Your task to perform on an android device: Show the shopping cart on newegg.com. Image 0: 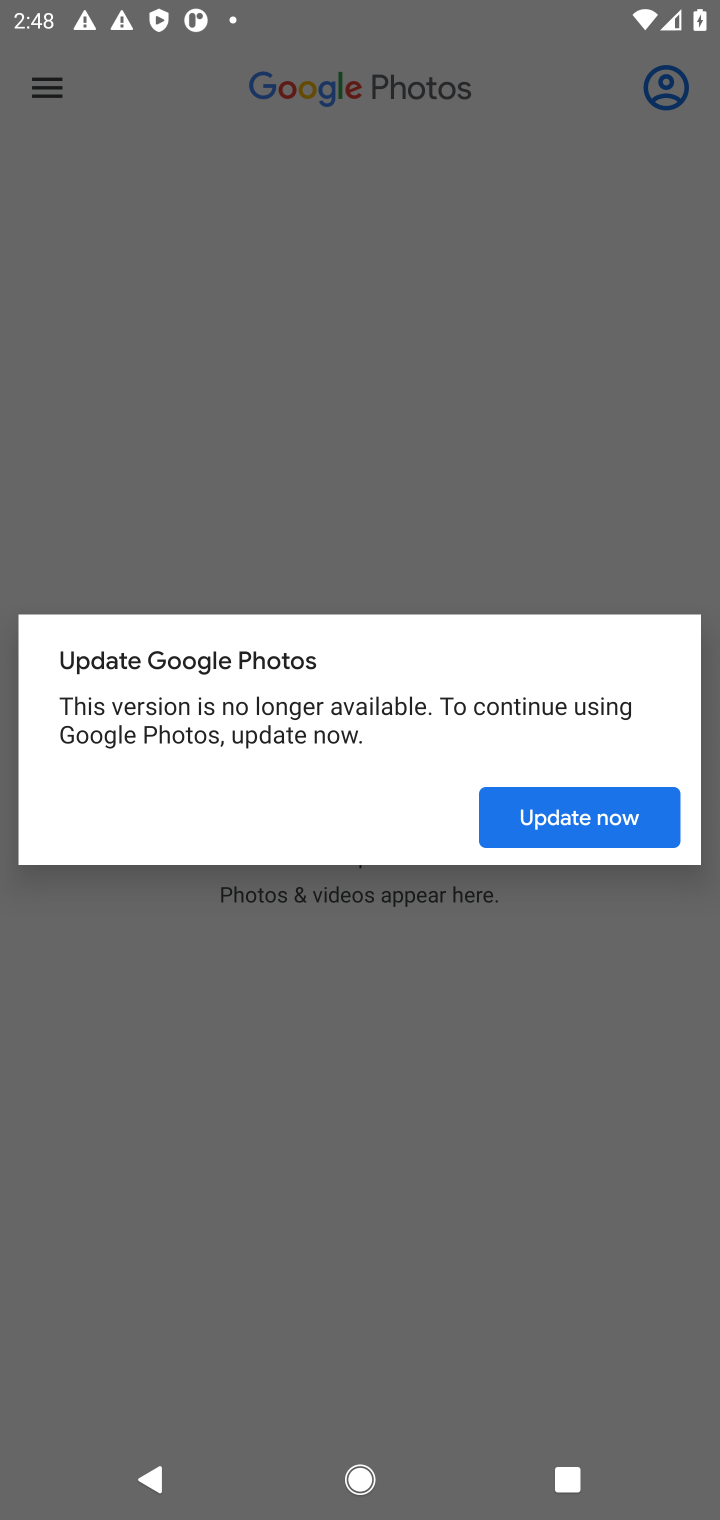
Step 0: press home button
Your task to perform on an android device: Show the shopping cart on newegg.com. Image 1: 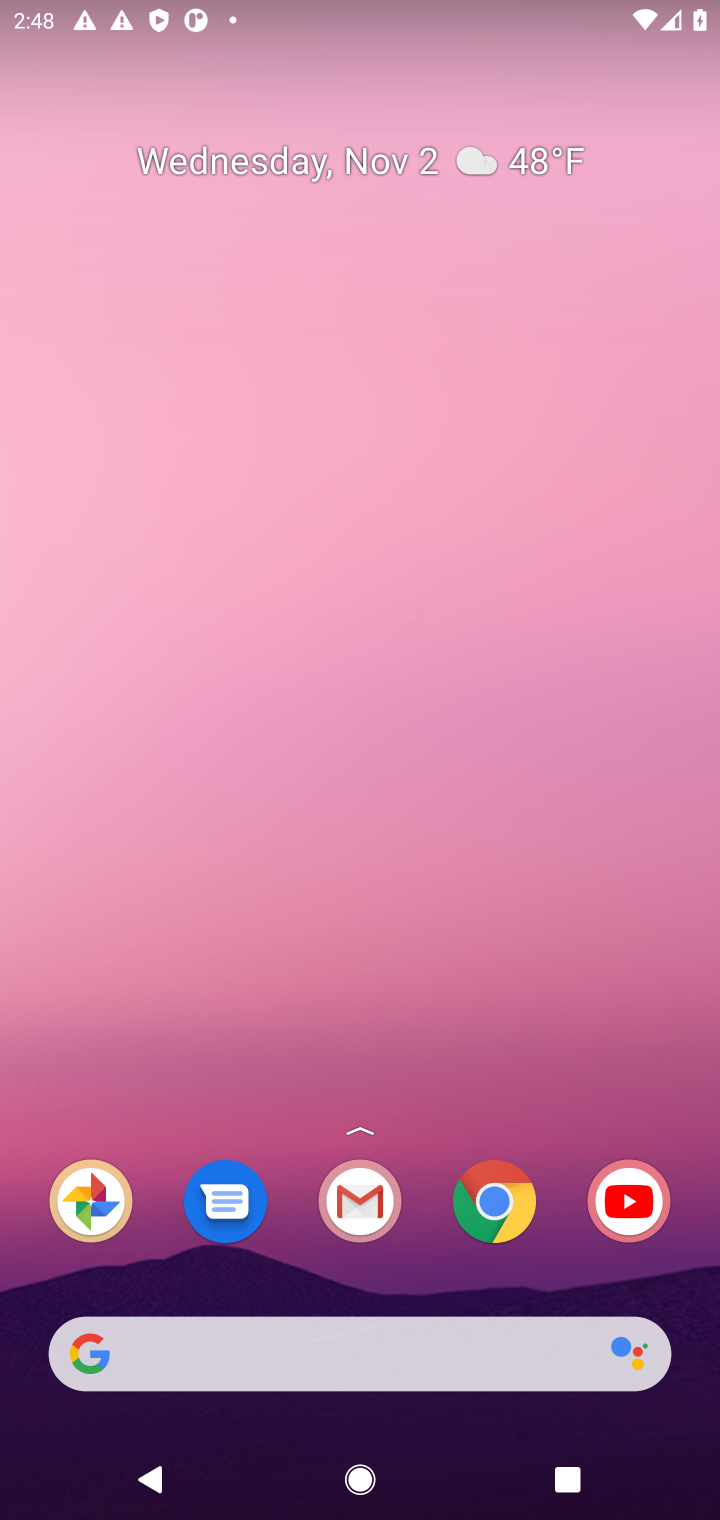
Step 1: click (489, 1204)
Your task to perform on an android device: Show the shopping cart on newegg.com. Image 2: 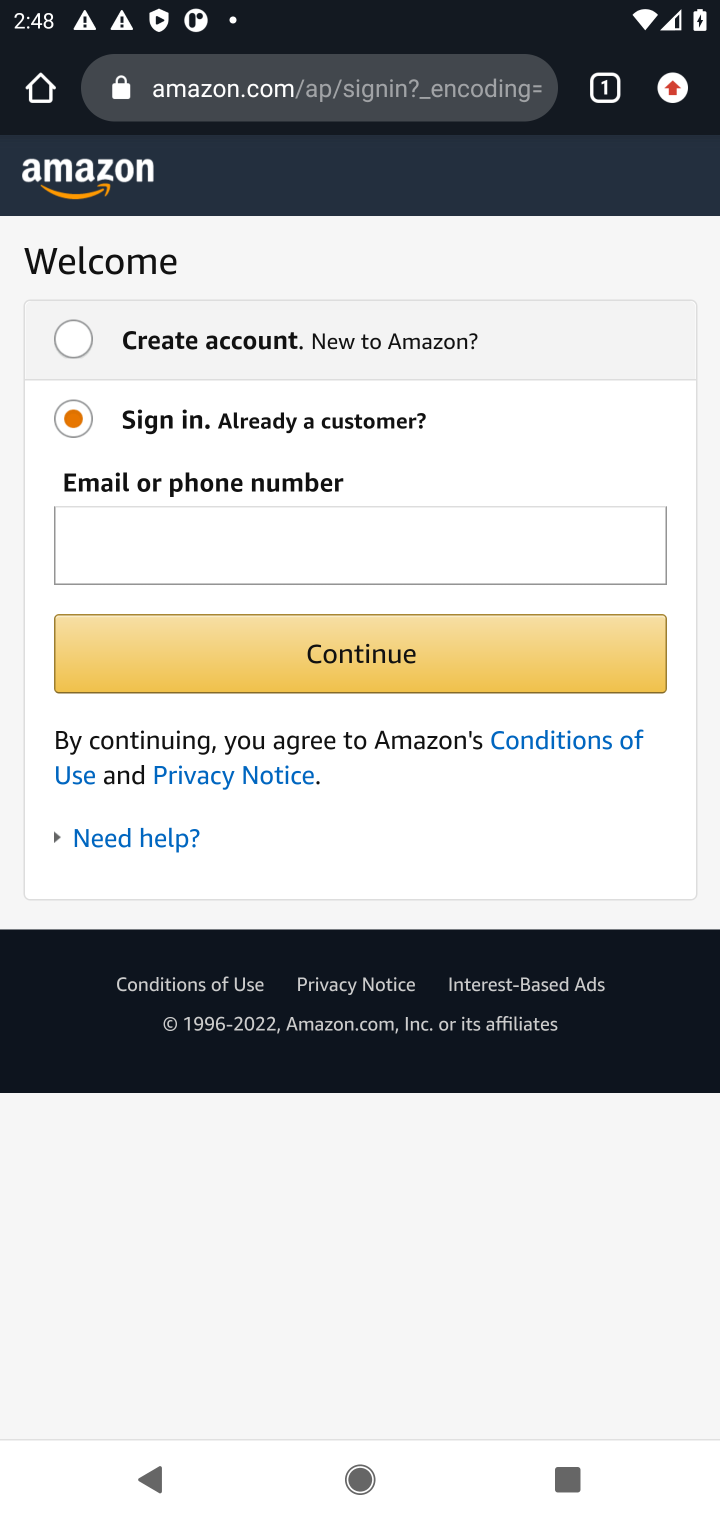
Step 2: click (449, 84)
Your task to perform on an android device: Show the shopping cart on newegg.com. Image 3: 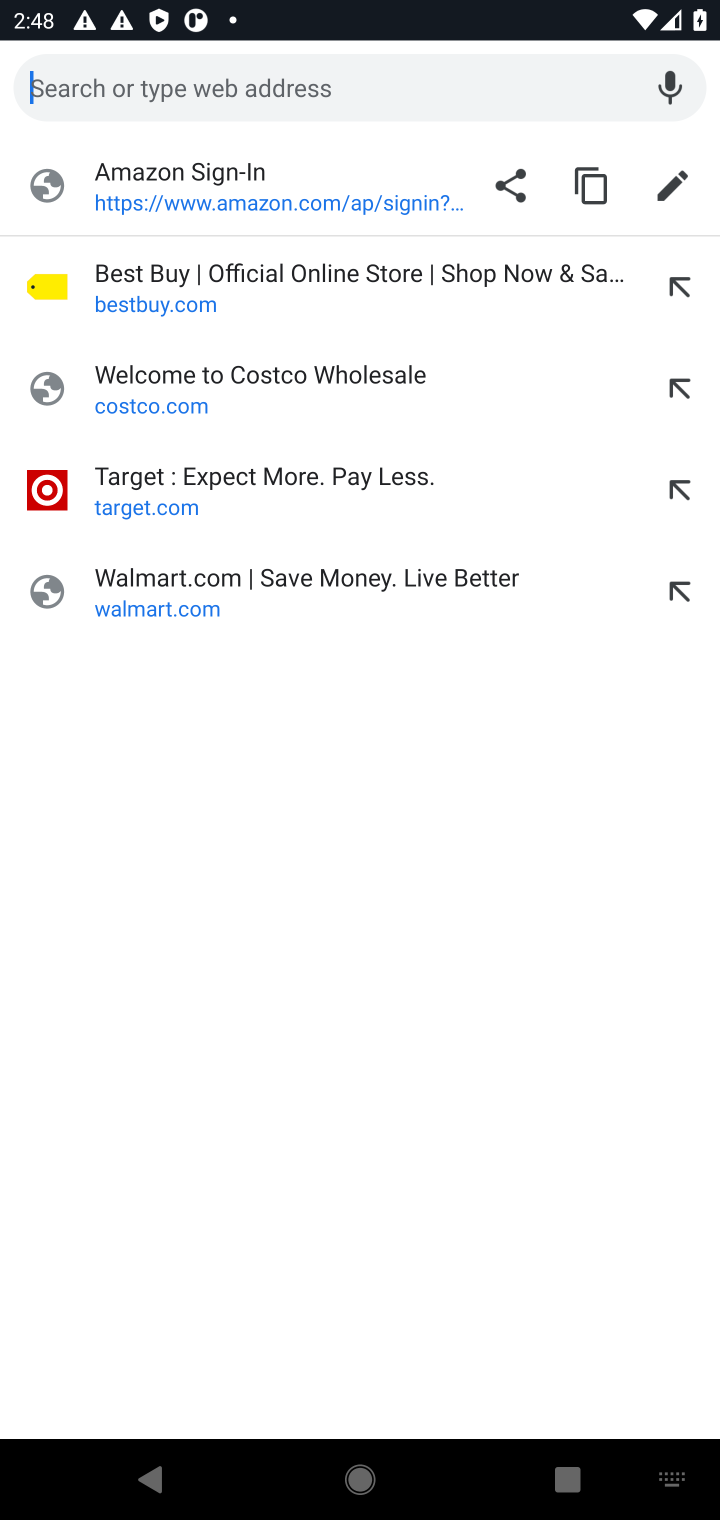
Step 3: type "newegg"
Your task to perform on an android device: Show the shopping cart on newegg.com. Image 4: 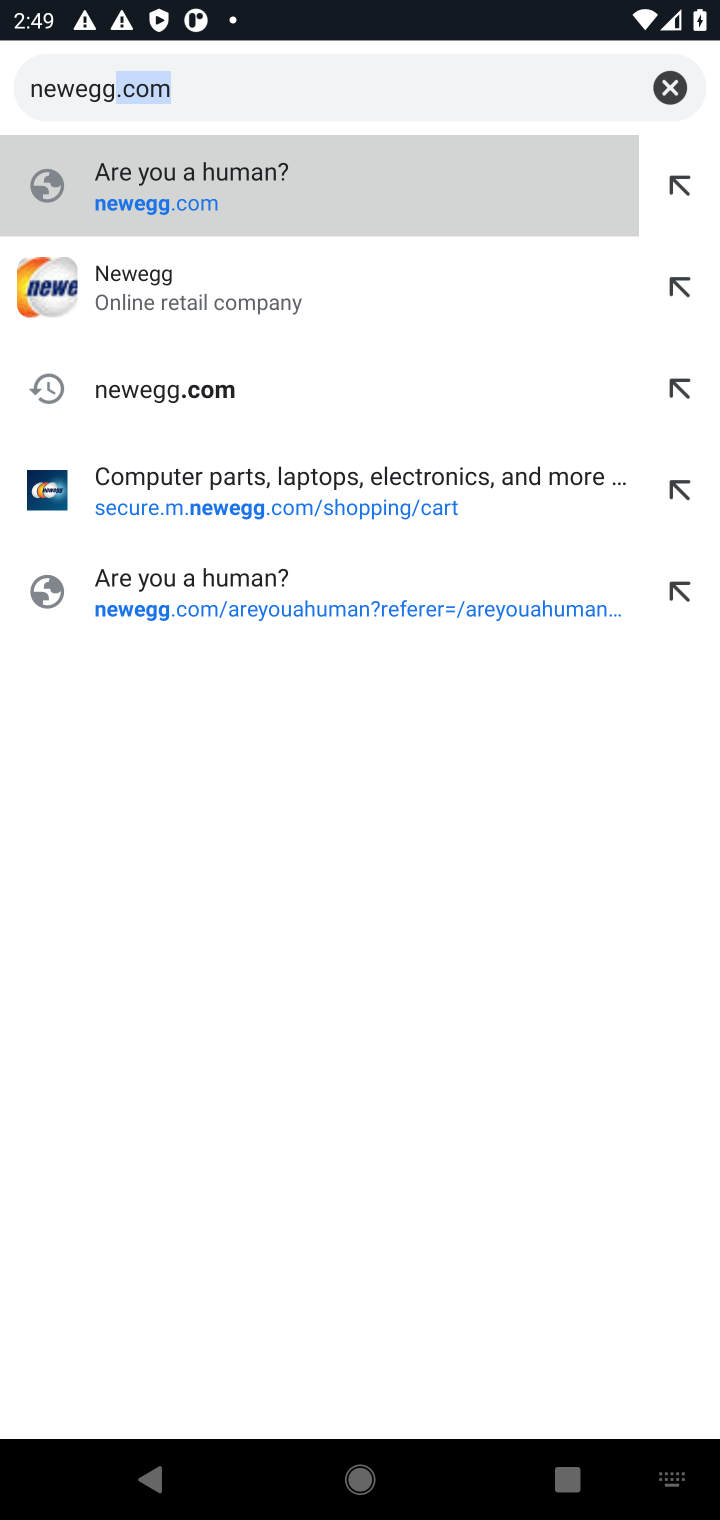
Step 4: click (280, 90)
Your task to perform on an android device: Show the shopping cart on newegg.com. Image 5: 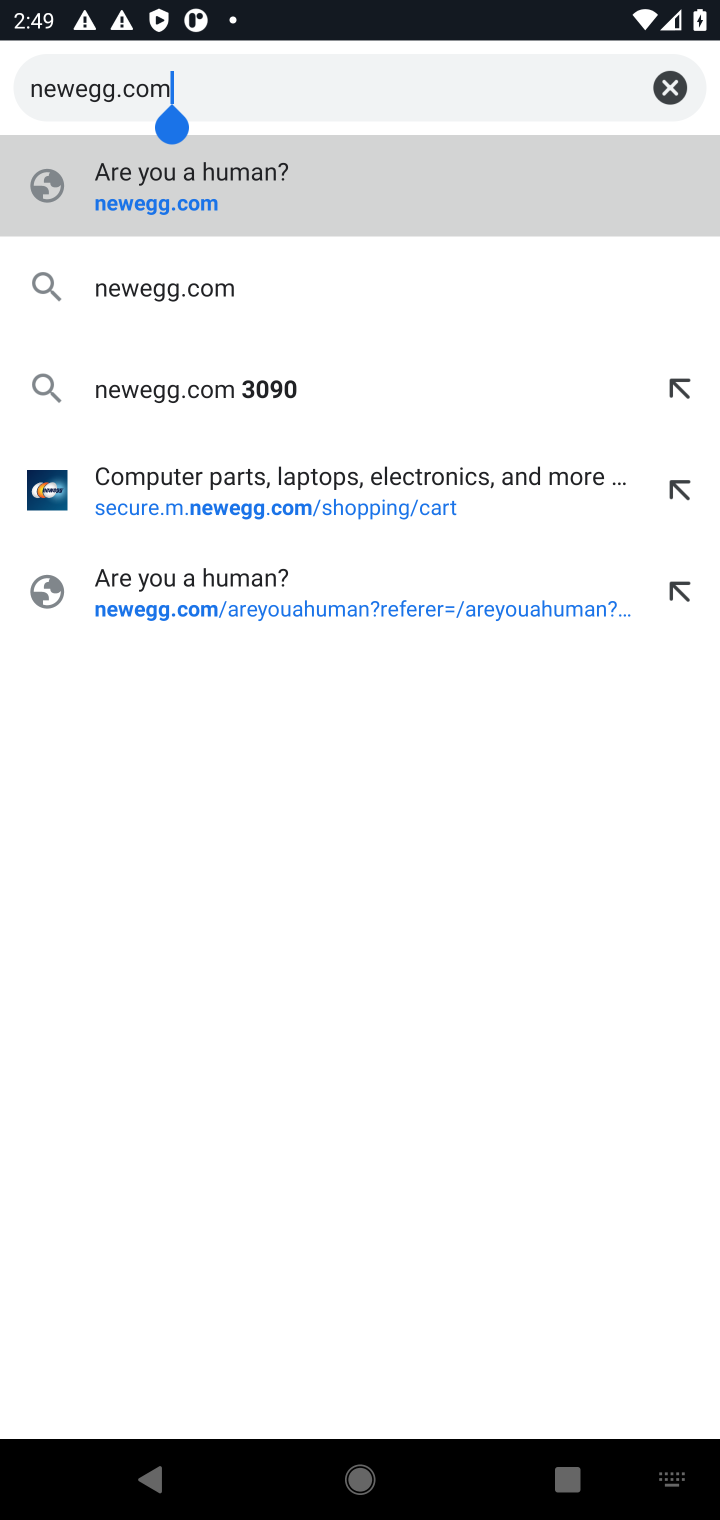
Step 5: click (194, 285)
Your task to perform on an android device: Show the shopping cart on newegg.com. Image 6: 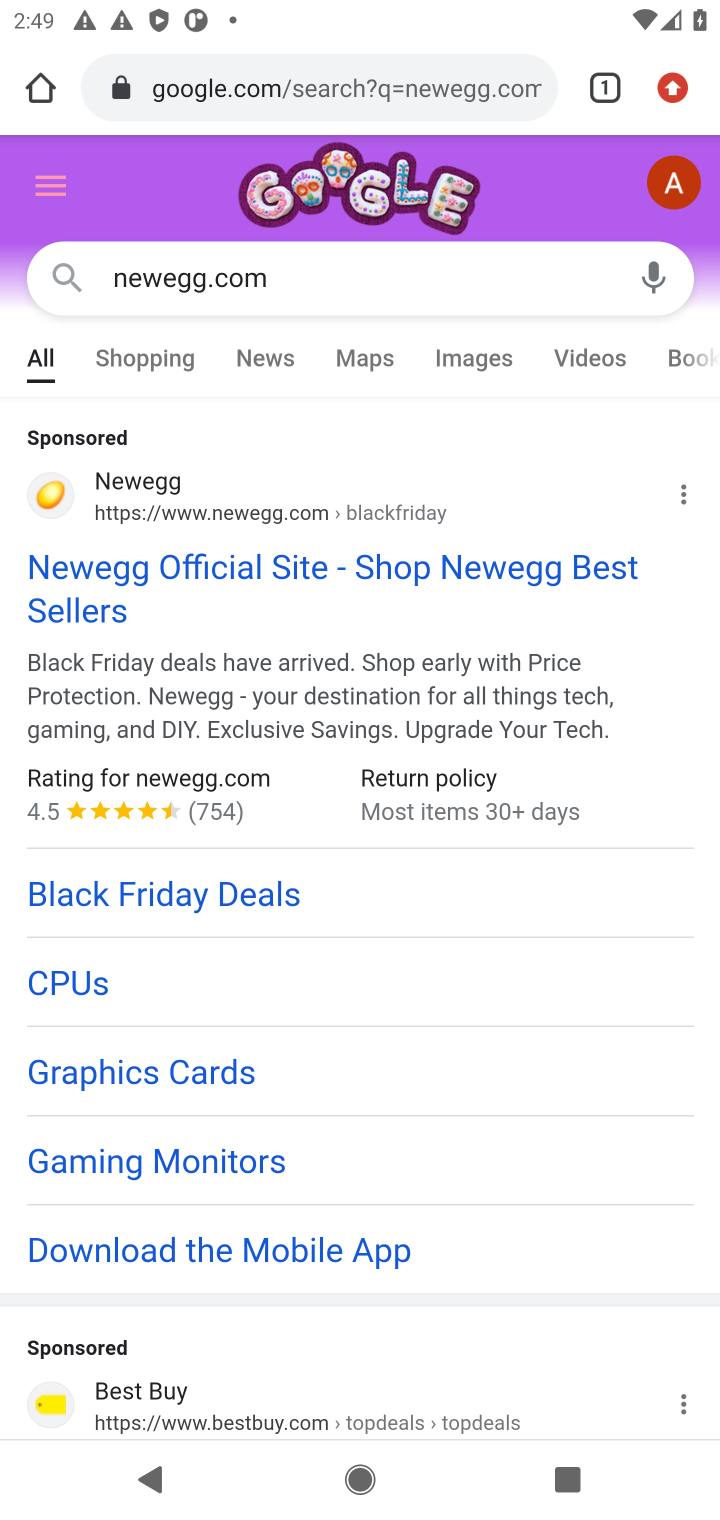
Step 6: click (217, 510)
Your task to perform on an android device: Show the shopping cart on newegg.com. Image 7: 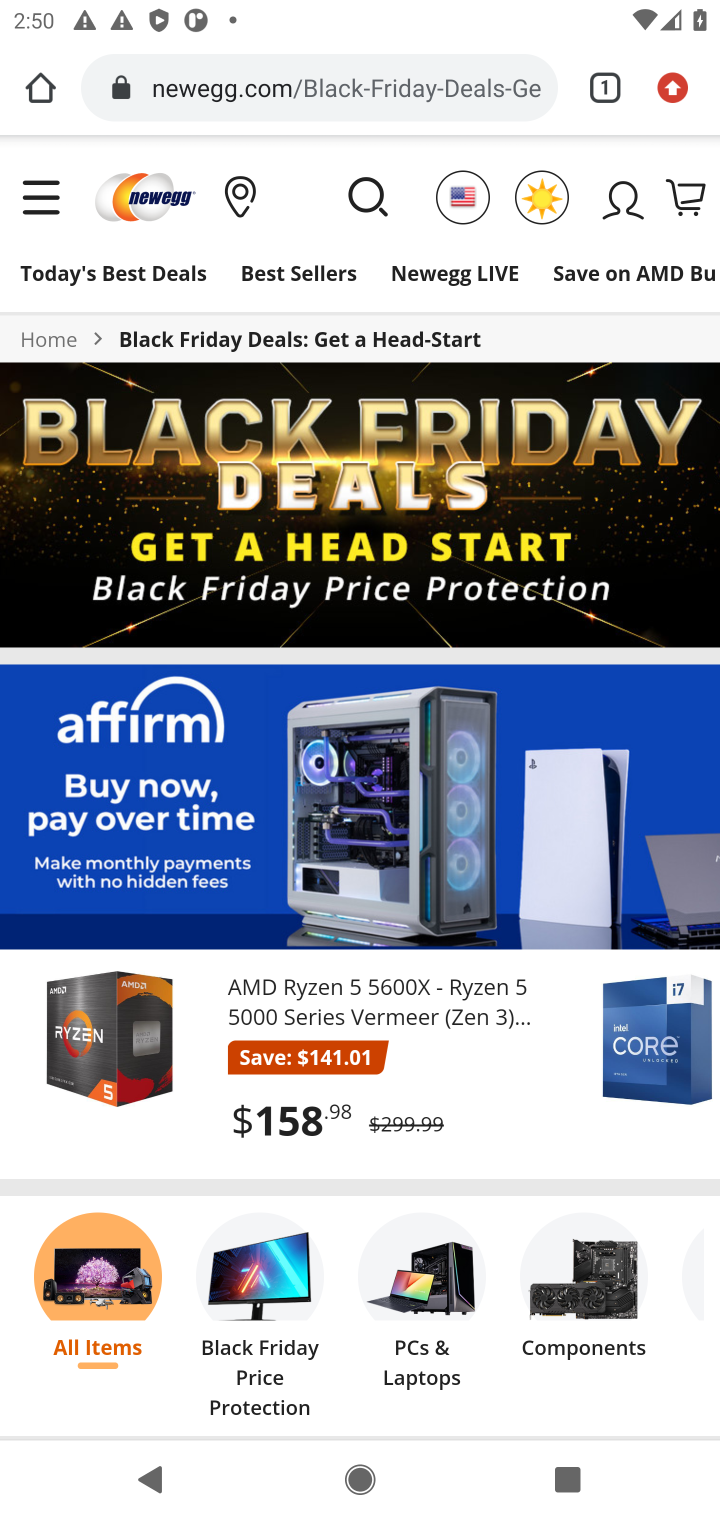
Step 7: click (682, 195)
Your task to perform on an android device: Show the shopping cart on newegg.com. Image 8: 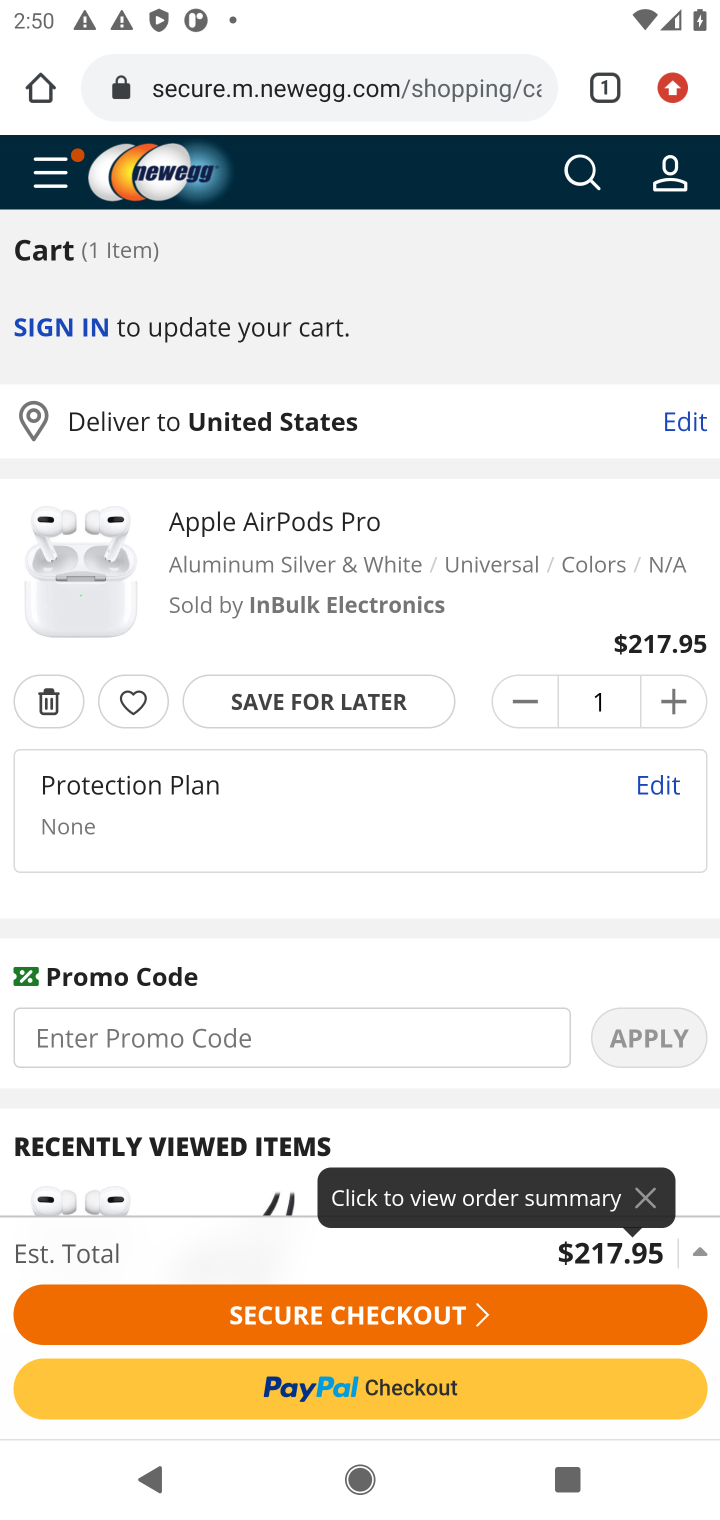
Step 8: task complete